Your task to perform on an android device: Open location settings Image 0: 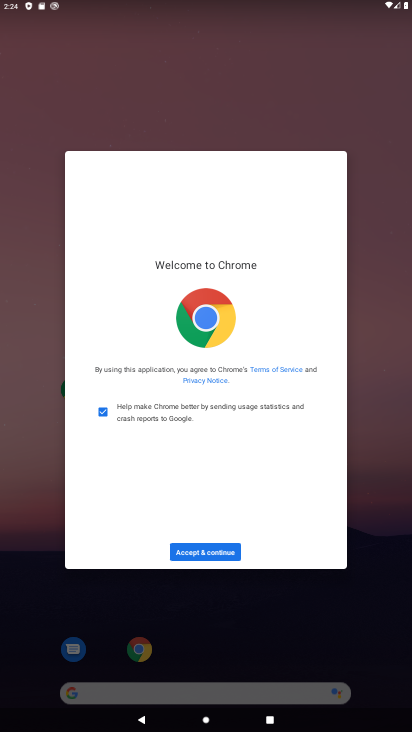
Step 0: press home button
Your task to perform on an android device: Open location settings Image 1: 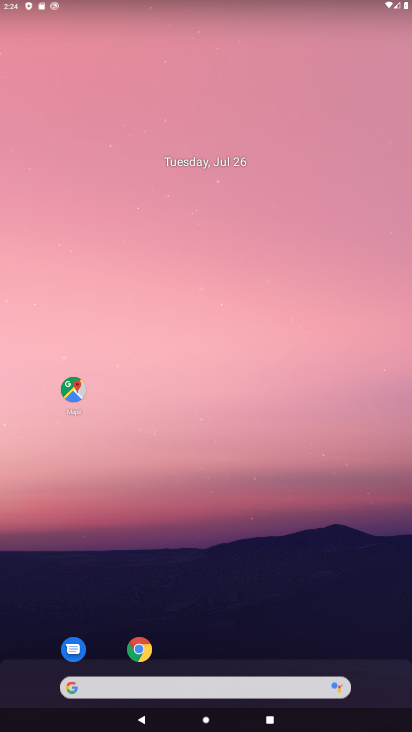
Step 1: drag from (253, 588) to (208, 83)
Your task to perform on an android device: Open location settings Image 2: 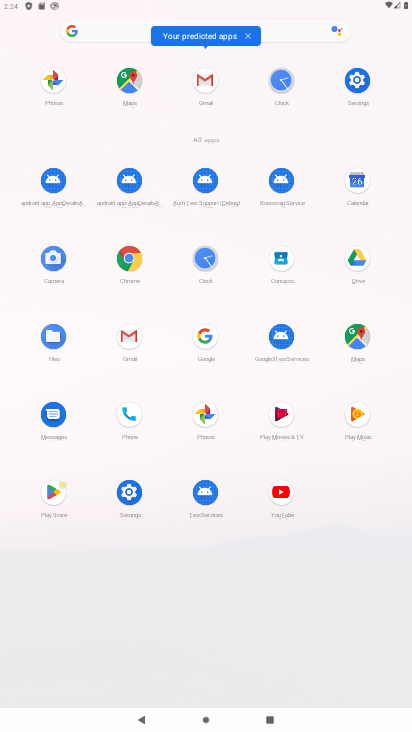
Step 2: click (360, 74)
Your task to perform on an android device: Open location settings Image 3: 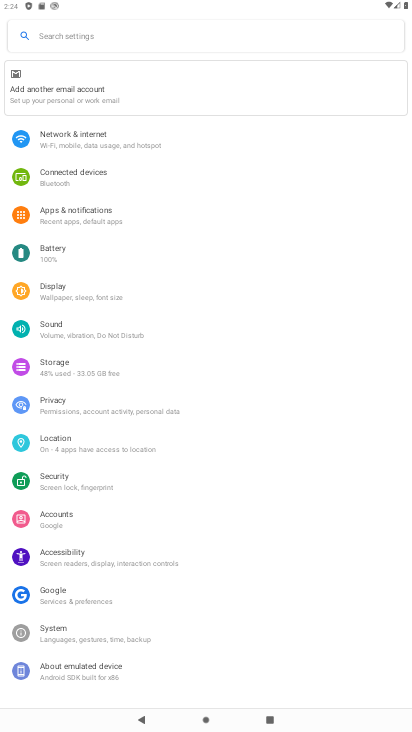
Step 3: click (84, 456)
Your task to perform on an android device: Open location settings Image 4: 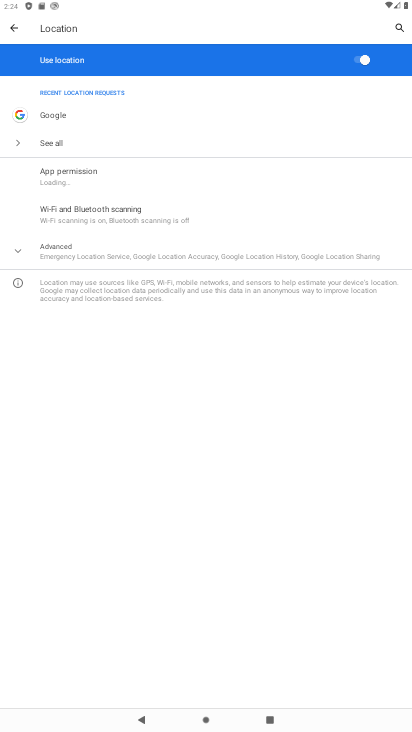
Step 4: task complete